Your task to perform on an android device: check storage Image 0: 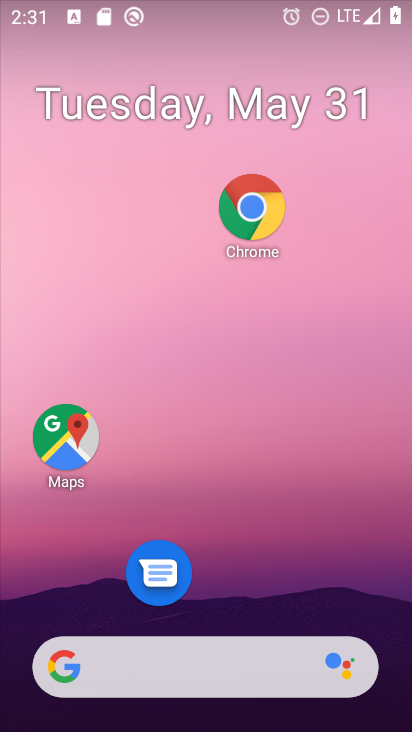
Step 0: drag from (184, 591) to (267, 65)
Your task to perform on an android device: check storage Image 1: 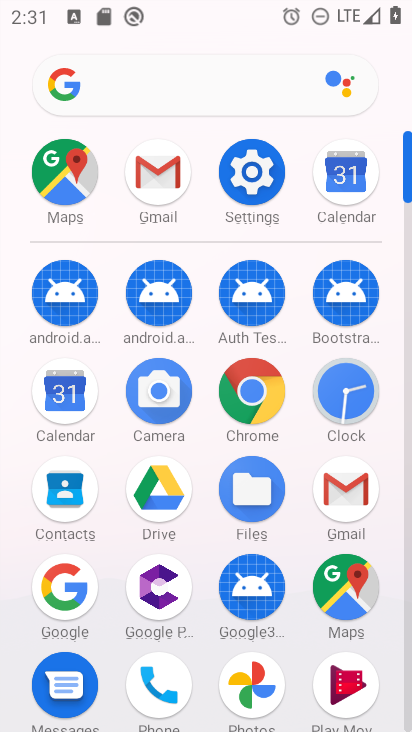
Step 1: click (248, 175)
Your task to perform on an android device: check storage Image 2: 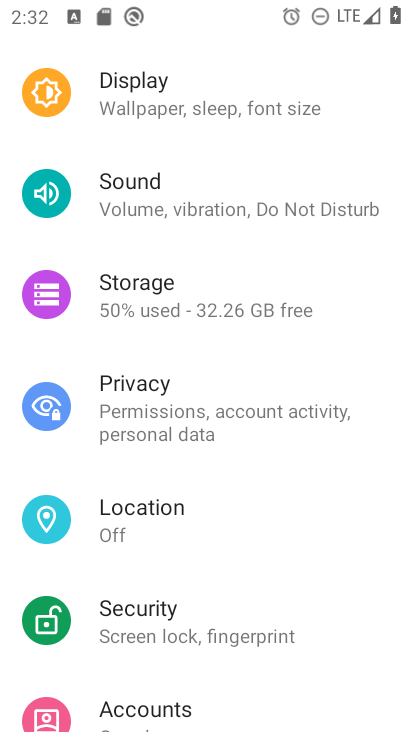
Step 2: drag from (164, 630) to (269, 183)
Your task to perform on an android device: check storage Image 3: 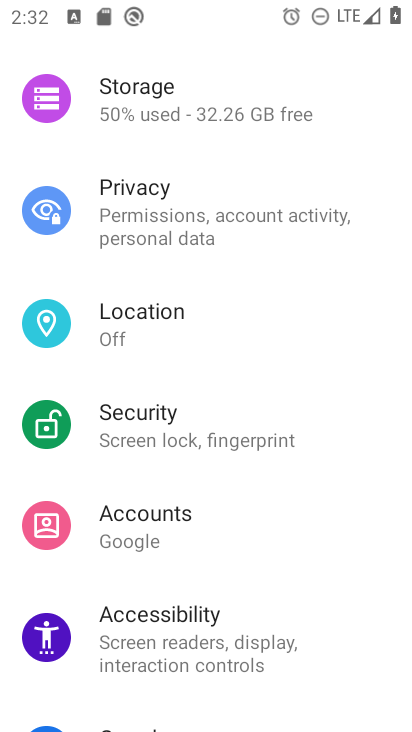
Step 3: drag from (212, 534) to (249, 277)
Your task to perform on an android device: check storage Image 4: 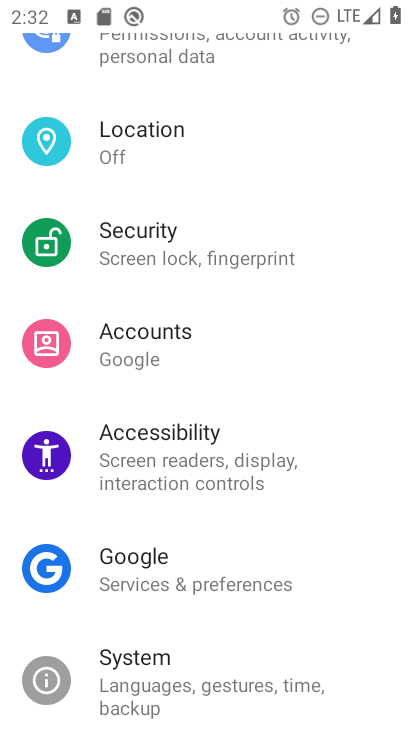
Step 4: drag from (248, 276) to (279, 479)
Your task to perform on an android device: check storage Image 5: 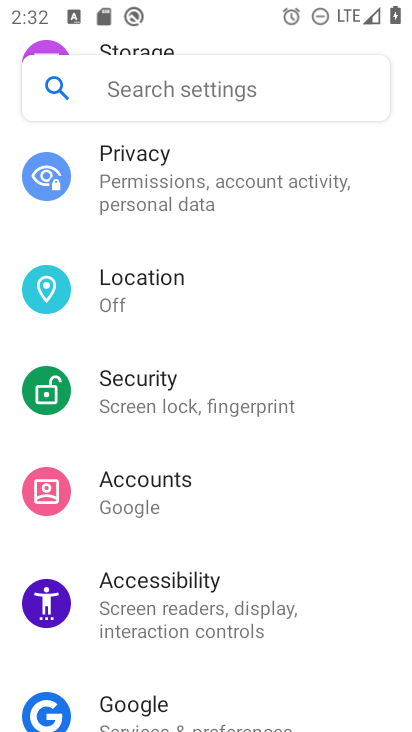
Step 5: drag from (244, 152) to (235, 192)
Your task to perform on an android device: check storage Image 6: 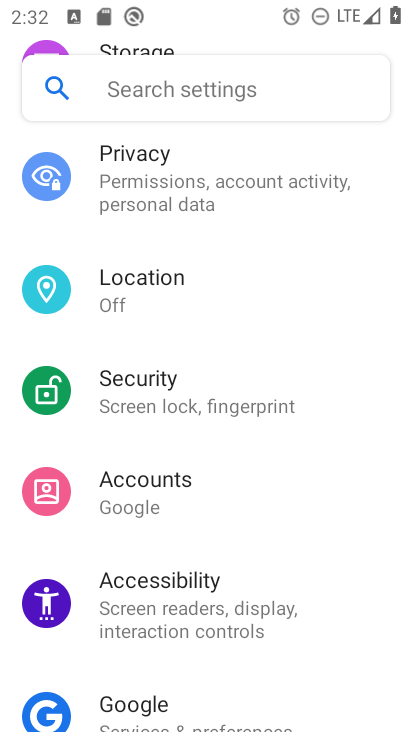
Step 6: drag from (235, 199) to (193, 557)
Your task to perform on an android device: check storage Image 7: 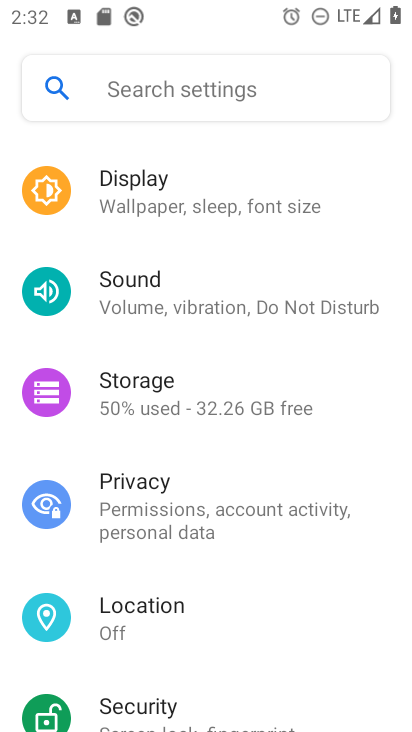
Step 7: click (186, 400)
Your task to perform on an android device: check storage Image 8: 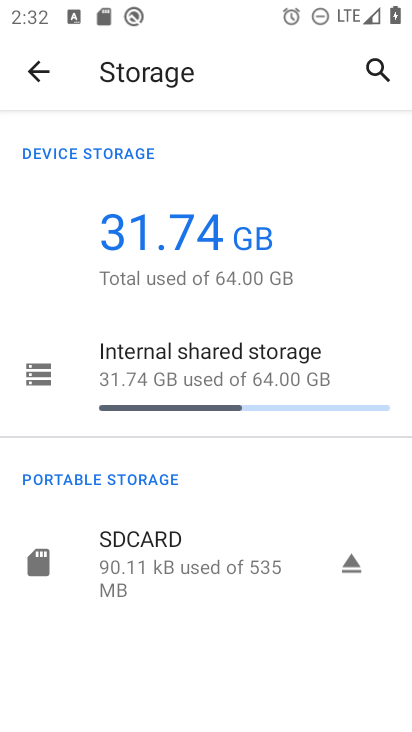
Step 8: click (297, 363)
Your task to perform on an android device: check storage Image 9: 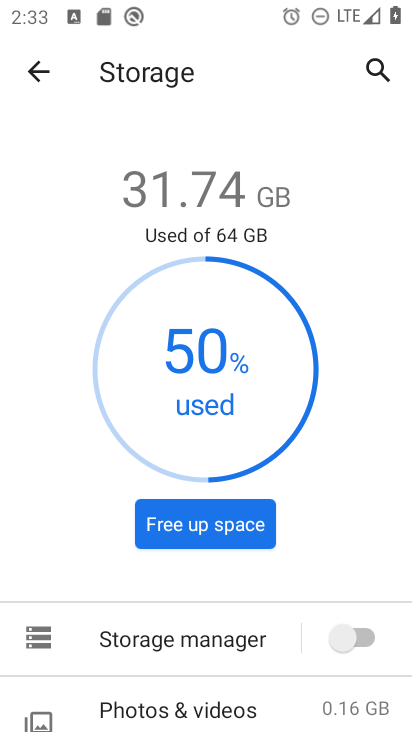
Step 9: task complete